Your task to perform on an android device: check storage Image 0: 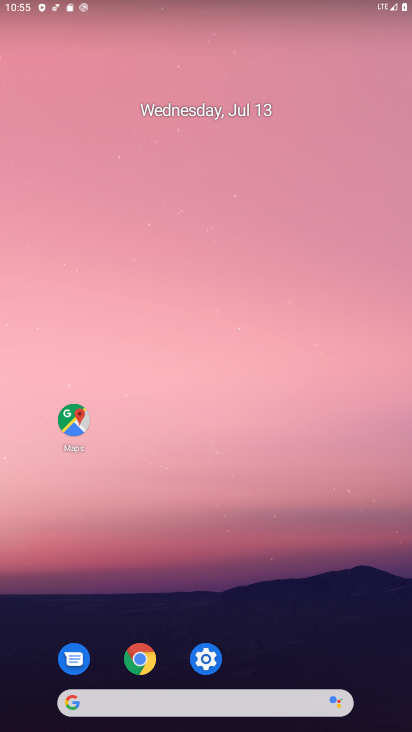
Step 0: drag from (289, 693) to (224, 54)
Your task to perform on an android device: check storage Image 1: 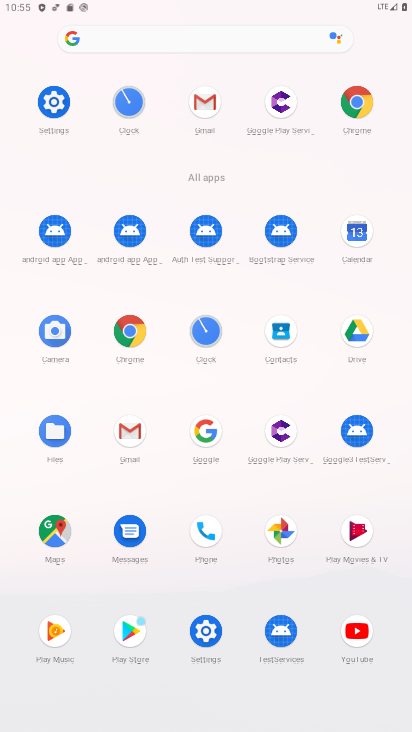
Step 1: click (210, 630)
Your task to perform on an android device: check storage Image 2: 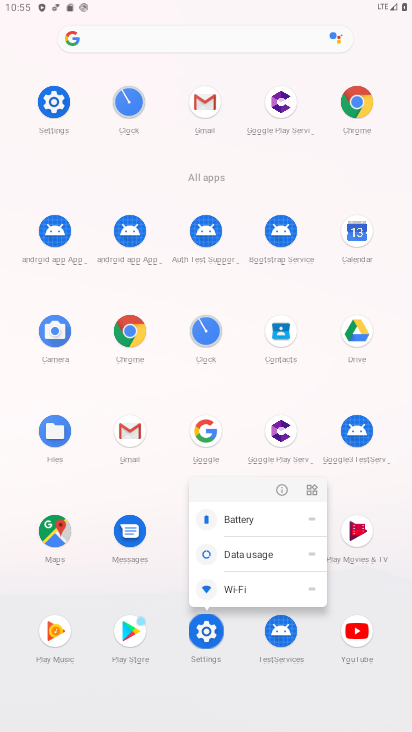
Step 2: click (210, 630)
Your task to perform on an android device: check storage Image 3: 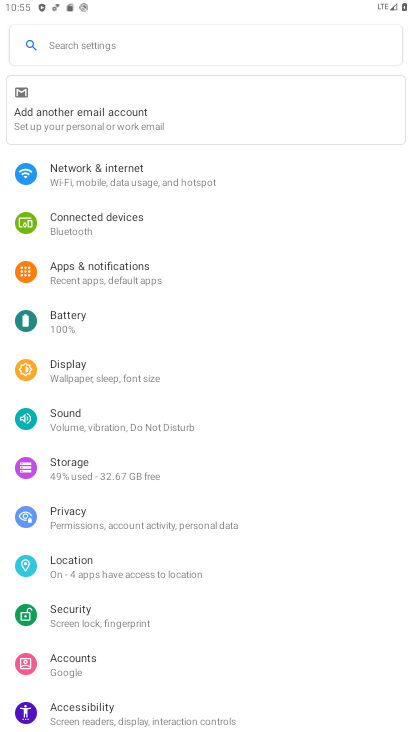
Step 3: click (81, 468)
Your task to perform on an android device: check storage Image 4: 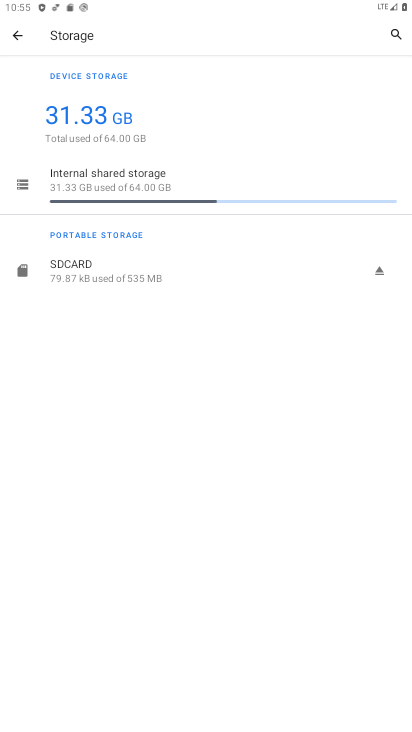
Step 4: click (81, 468)
Your task to perform on an android device: check storage Image 5: 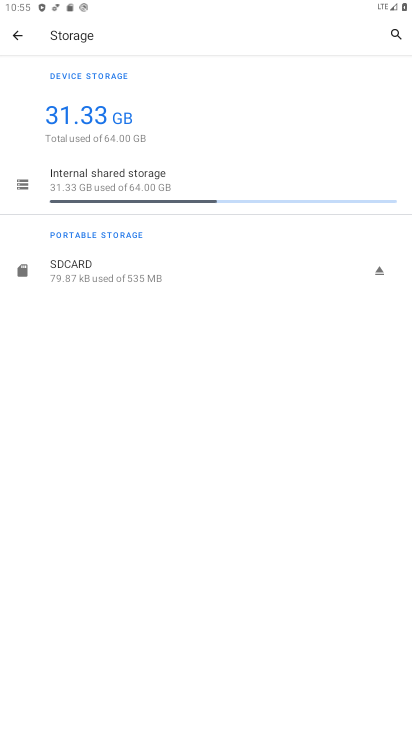
Step 5: task complete